Your task to perform on an android device: change the clock style Image 0: 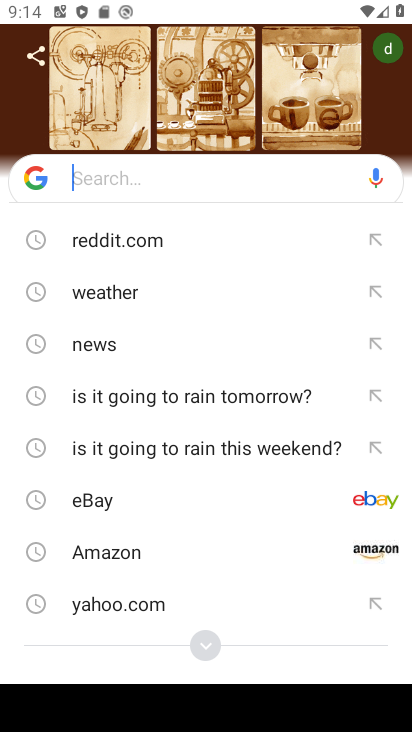
Step 0: press home button
Your task to perform on an android device: change the clock style Image 1: 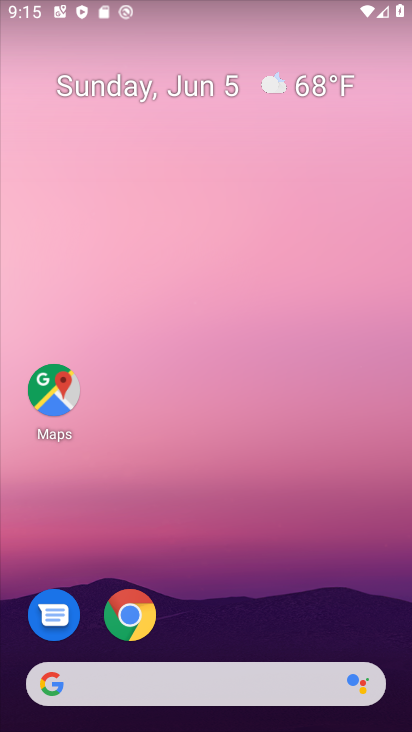
Step 1: drag from (238, 670) to (215, 195)
Your task to perform on an android device: change the clock style Image 2: 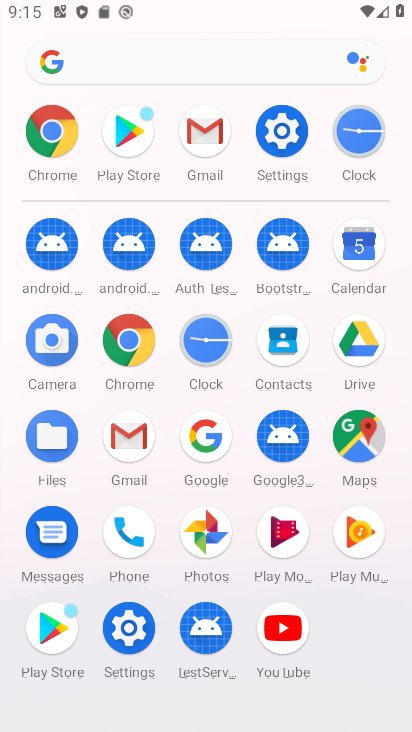
Step 2: click (362, 119)
Your task to perform on an android device: change the clock style Image 3: 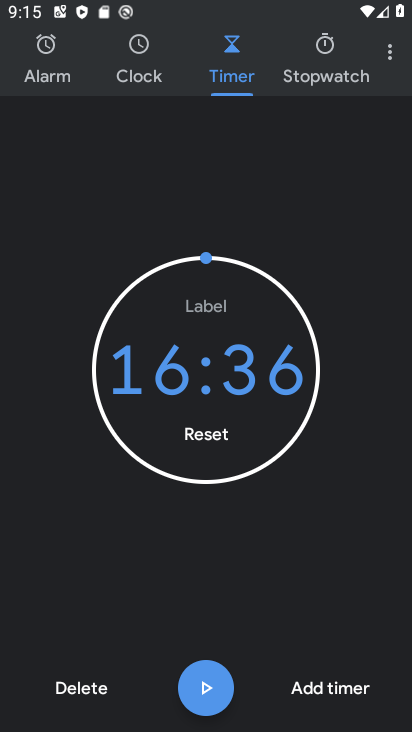
Step 3: click (385, 44)
Your task to perform on an android device: change the clock style Image 4: 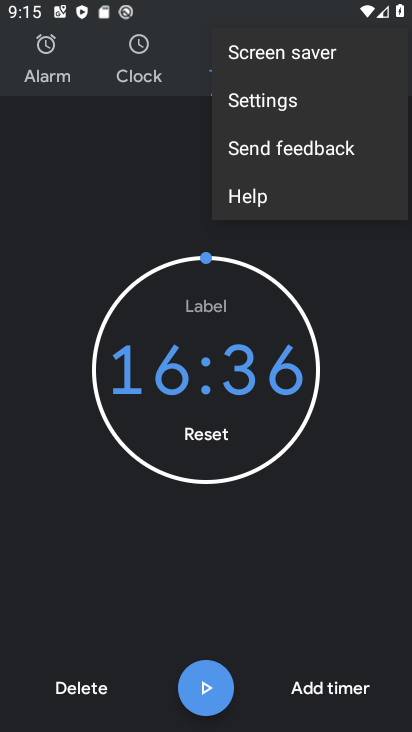
Step 4: click (311, 109)
Your task to perform on an android device: change the clock style Image 5: 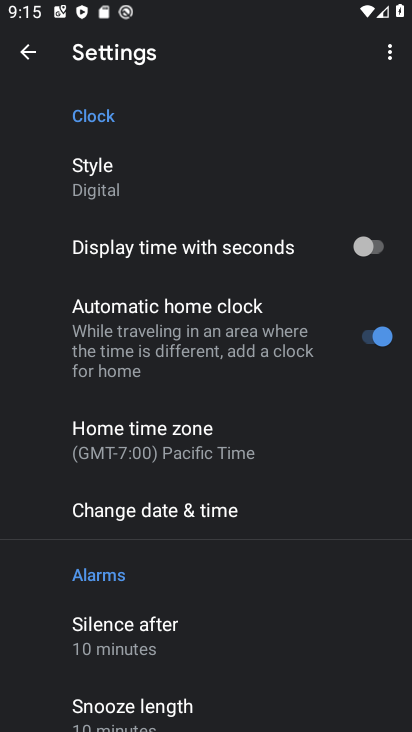
Step 5: click (192, 178)
Your task to perform on an android device: change the clock style Image 6: 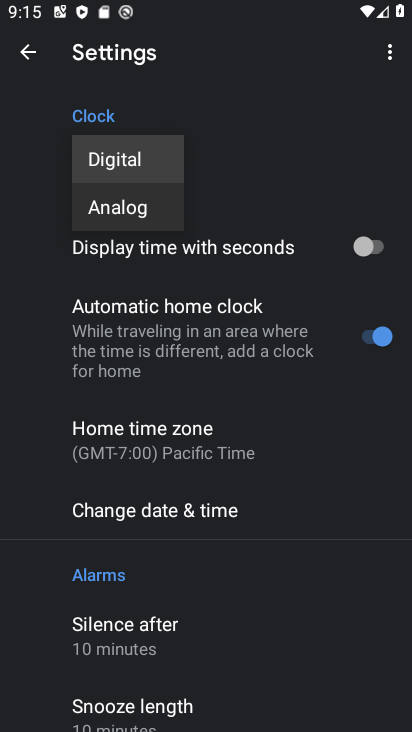
Step 6: click (166, 208)
Your task to perform on an android device: change the clock style Image 7: 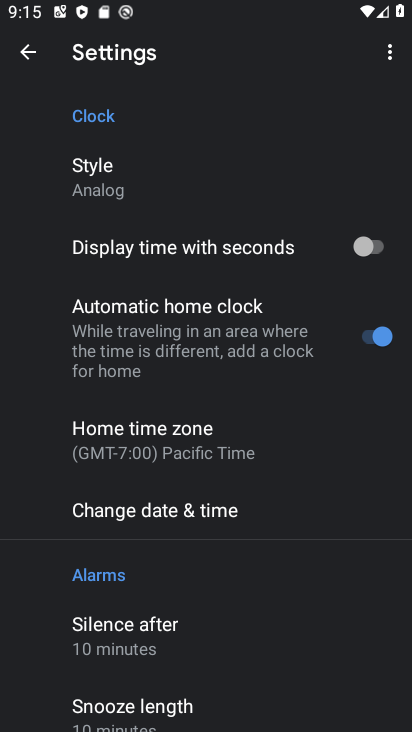
Step 7: task complete